Your task to perform on an android device: turn off translation in the chrome app Image 0: 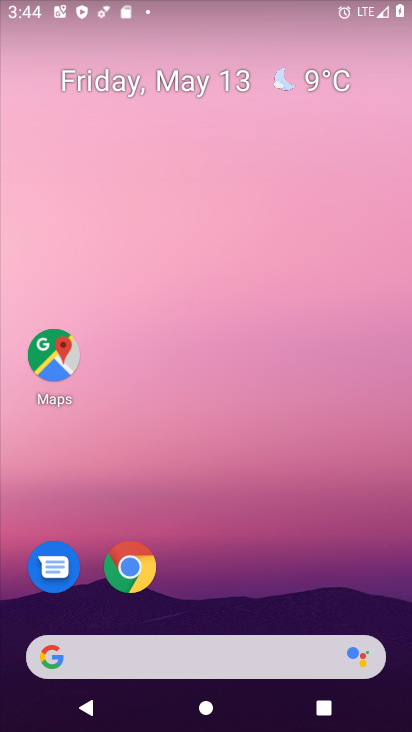
Step 0: click (131, 576)
Your task to perform on an android device: turn off translation in the chrome app Image 1: 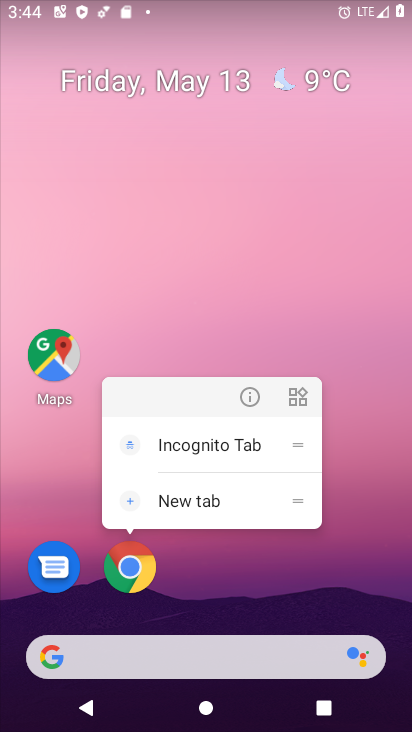
Step 1: click (133, 564)
Your task to perform on an android device: turn off translation in the chrome app Image 2: 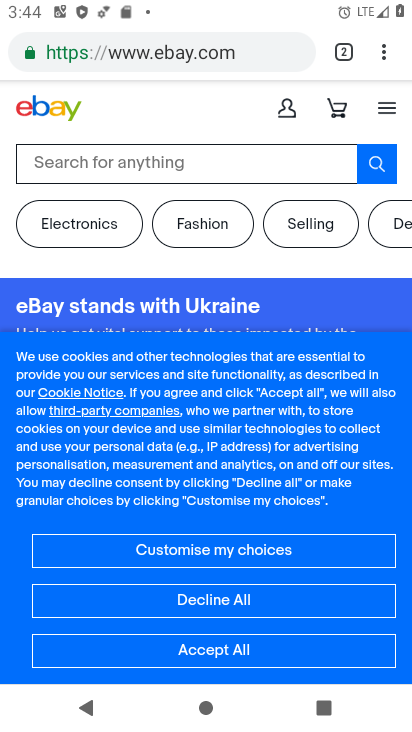
Step 2: click (383, 52)
Your task to perform on an android device: turn off translation in the chrome app Image 3: 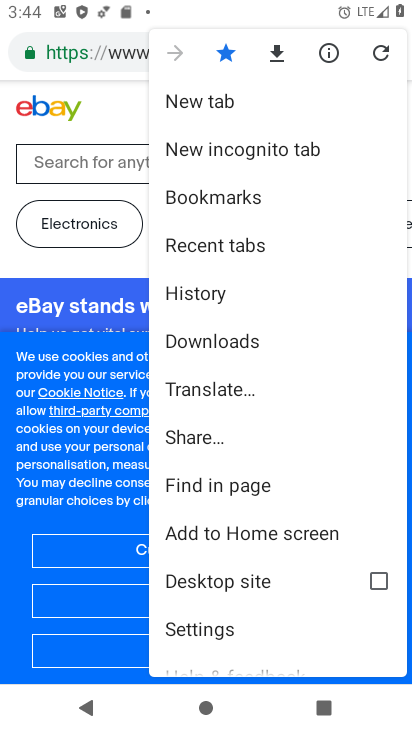
Step 3: click (218, 627)
Your task to perform on an android device: turn off translation in the chrome app Image 4: 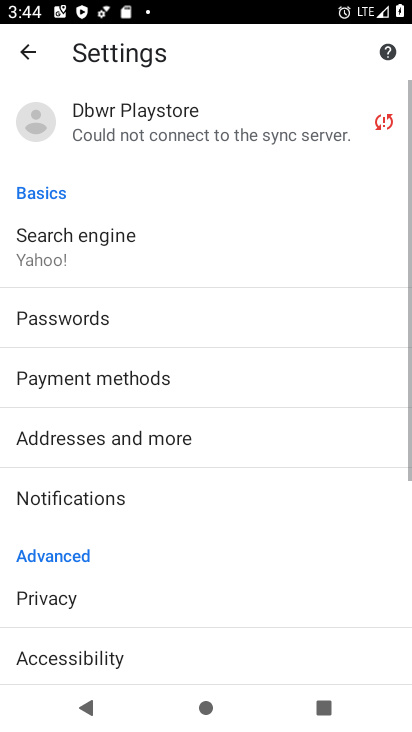
Step 4: drag from (158, 613) to (188, 207)
Your task to perform on an android device: turn off translation in the chrome app Image 5: 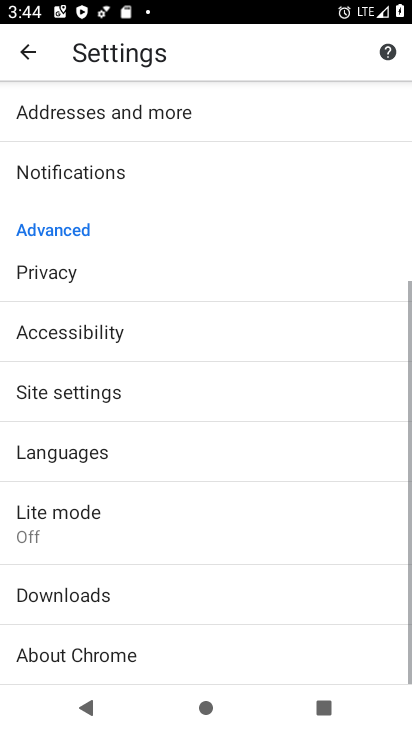
Step 5: click (68, 449)
Your task to perform on an android device: turn off translation in the chrome app Image 6: 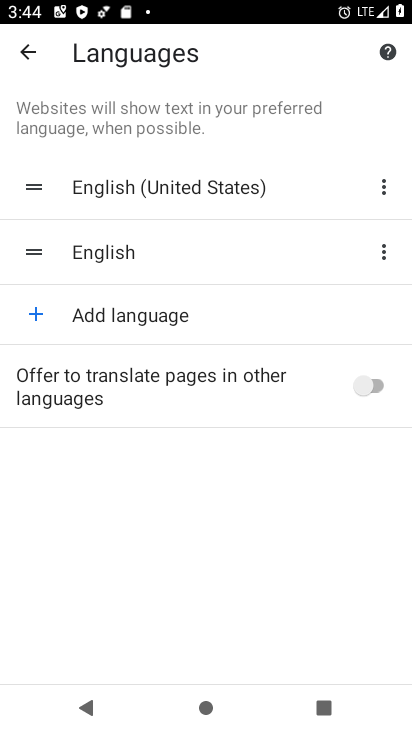
Step 6: task complete